Your task to perform on an android device: choose inbox layout in the gmail app Image 0: 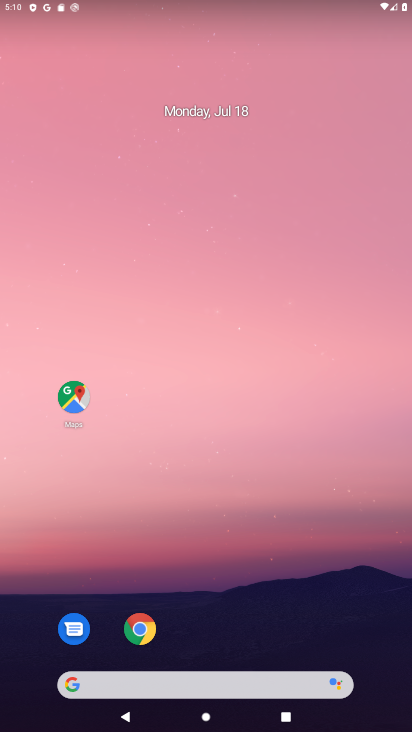
Step 0: drag from (294, 605) to (146, 5)
Your task to perform on an android device: choose inbox layout in the gmail app Image 1: 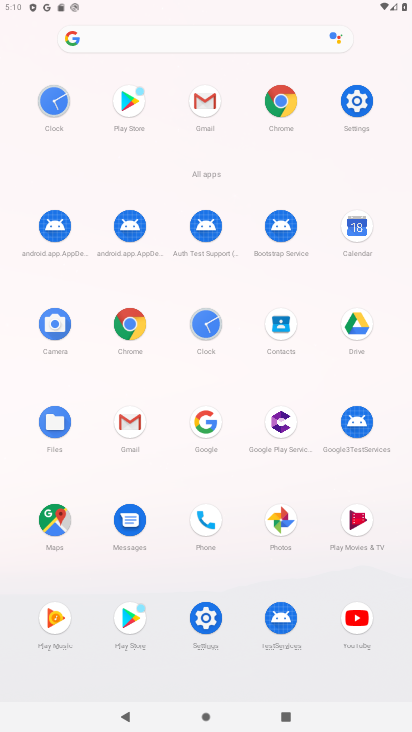
Step 1: click (215, 91)
Your task to perform on an android device: choose inbox layout in the gmail app Image 2: 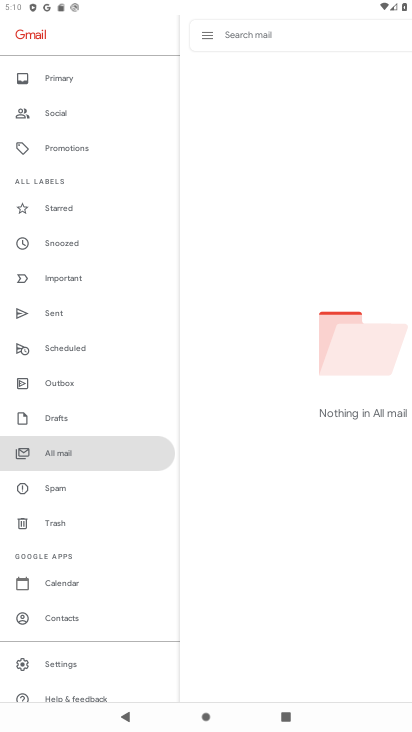
Step 2: click (73, 671)
Your task to perform on an android device: choose inbox layout in the gmail app Image 3: 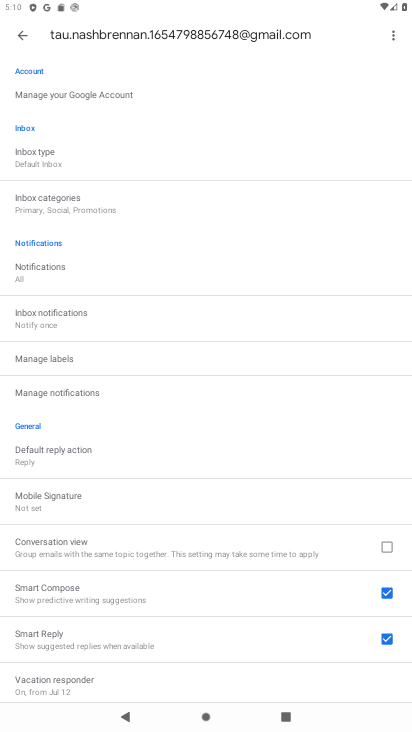
Step 3: click (45, 161)
Your task to perform on an android device: choose inbox layout in the gmail app Image 4: 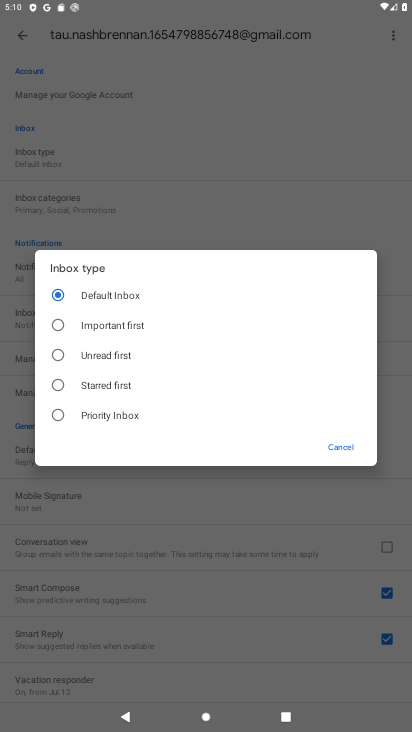
Step 4: task complete